Your task to perform on an android device: Open eBay Image 0: 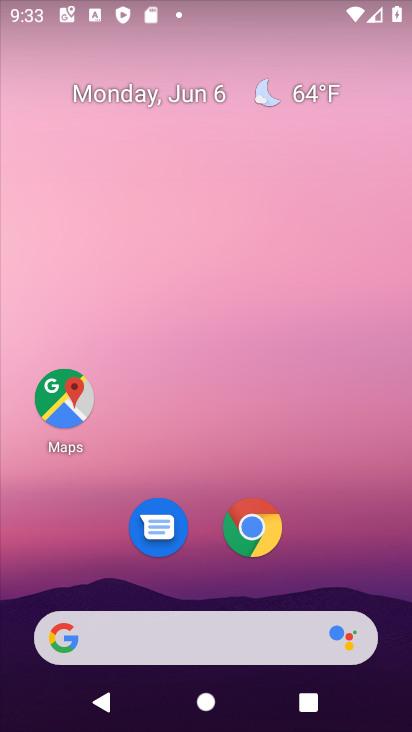
Step 0: drag from (238, 472) to (259, 224)
Your task to perform on an android device: Open eBay Image 1: 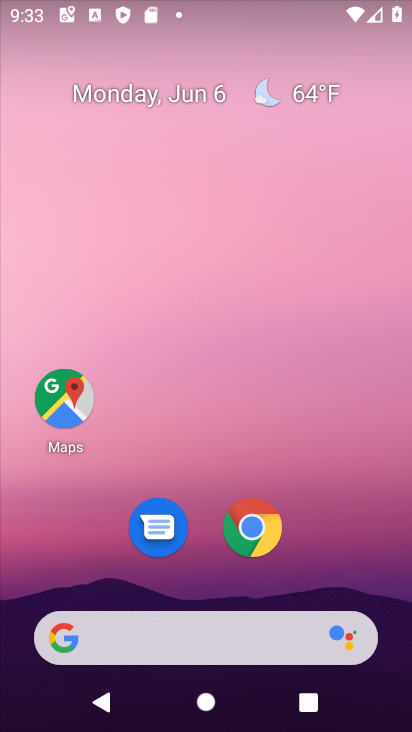
Step 1: drag from (225, 649) to (278, 248)
Your task to perform on an android device: Open eBay Image 2: 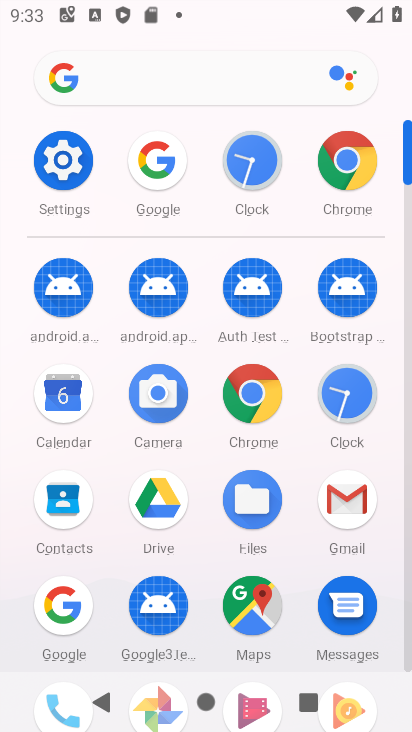
Step 2: click (353, 186)
Your task to perform on an android device: Open eBay Image 3: 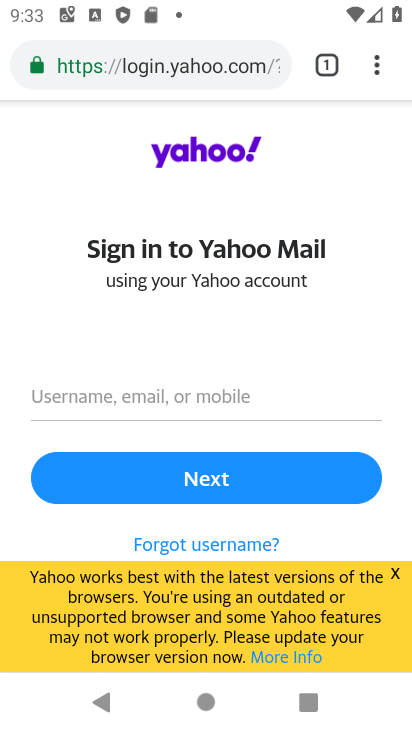
Step 3: click (217, 66)
Your task to perform on an android device: Open eBay Image 4: 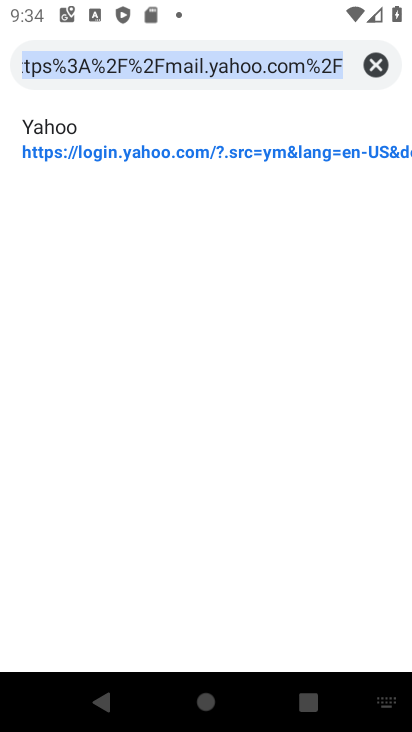
Step 4: type "ebay"
Your task to perform on an android device: Open eBay Image 5: 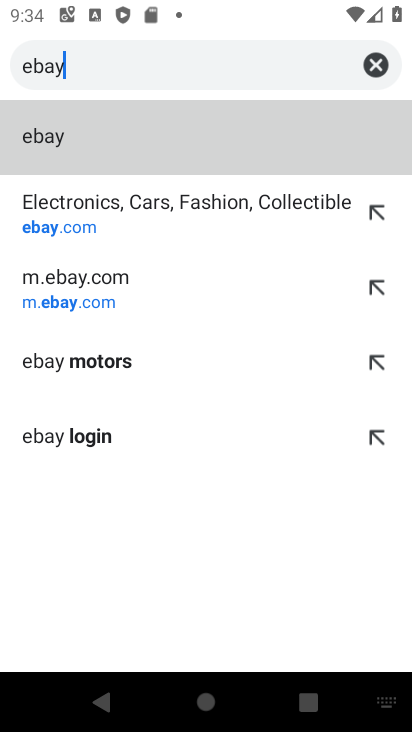
Step 5: click (215, 210)
Your task to perform on an android device: Open eBay Image 6: 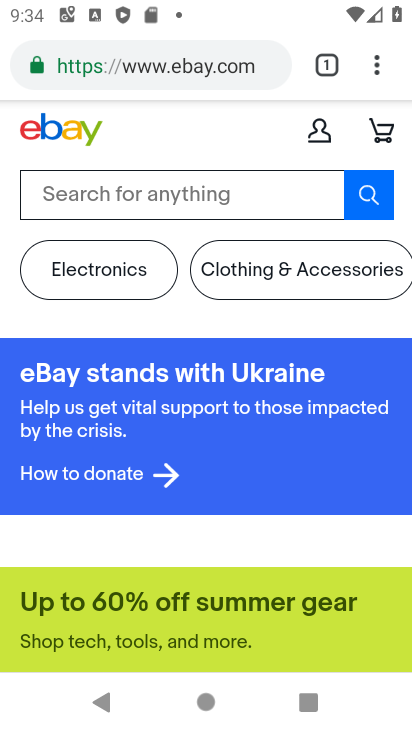
Step 6: task complete